Your task to perform on an android device: turn on showing notifications on the lock screen Image 0: 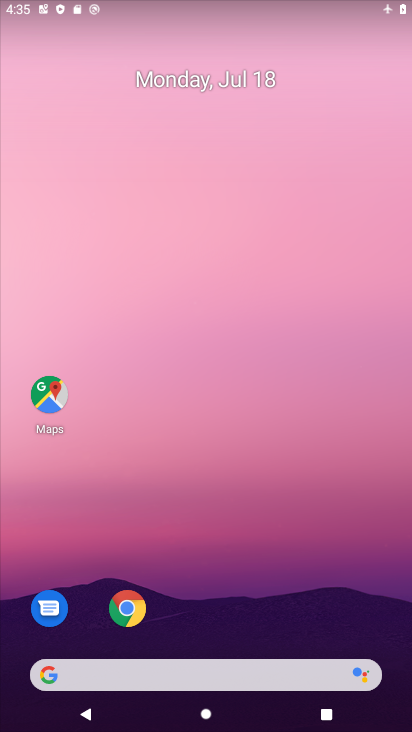
Step 0: drag from (287, 614) to (278, 121)
Your task to perform on an android device: turn on showing notifications on the lock screen Image 1: 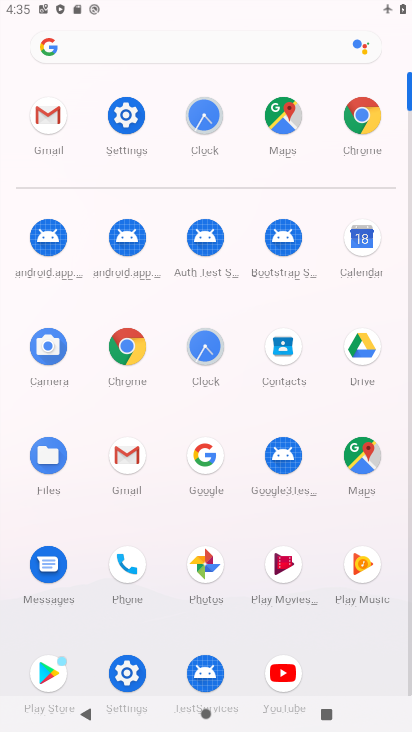
Step 1: click (136, 113)
Your task to perform on an android device: turn on showing notifications on the lock screen Image 2: 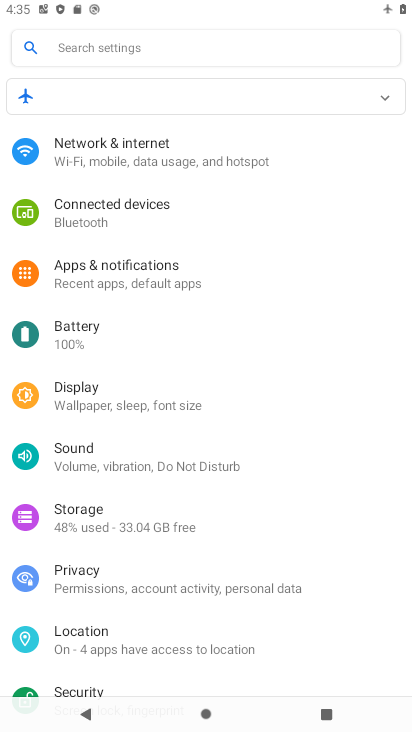
Step 2: click (115, 270)
Your task to perform on an android device: turn on showing notifications on the lock screen Image 3: 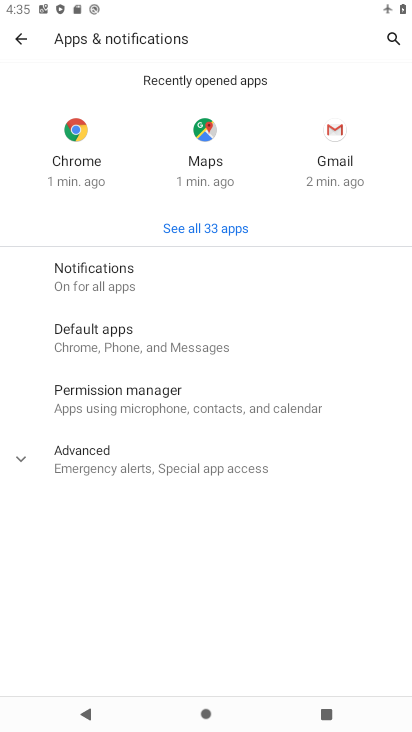
Step 3: click (106, 272)
Your task to perform on an android device: turn on showing notifications on the lock screen Image 4: 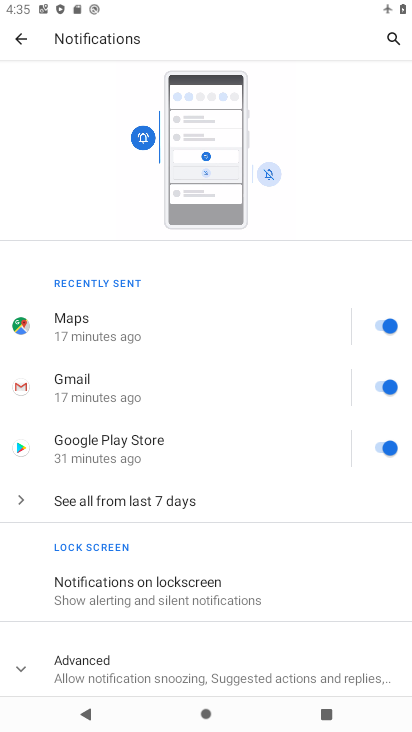
Step 4: click (199, 590)
Your task to perform on an android device: turn on showing notifications on the lock screen Image 5: 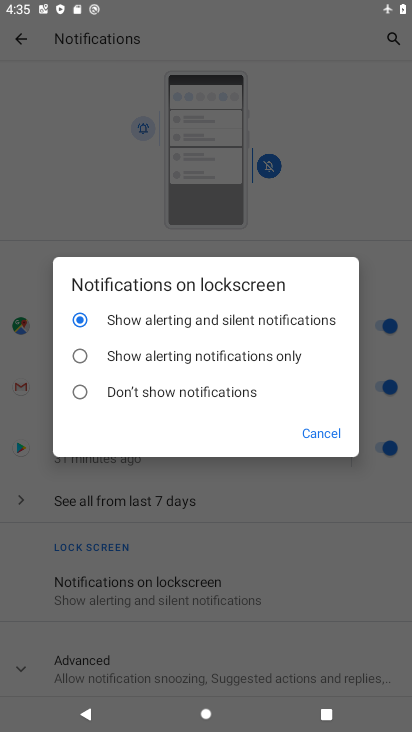
Step 5: click (197, 364)
Your task to perform on an android device: turn on showing notifications on the lock screen Image 6: 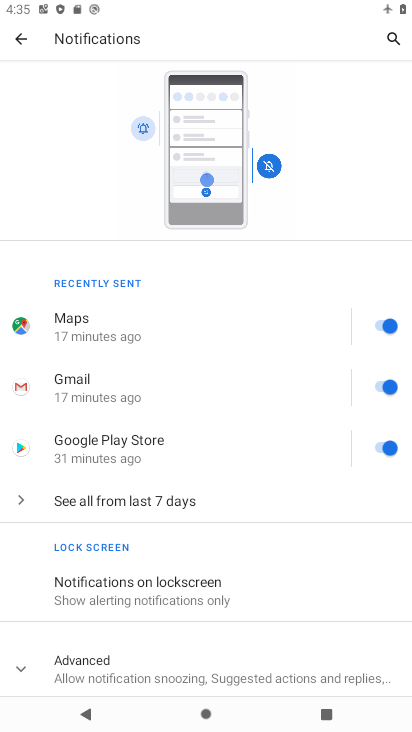
Step 6: task complete